Your task to perform on an android device: change the upload size in google photos Image 0: 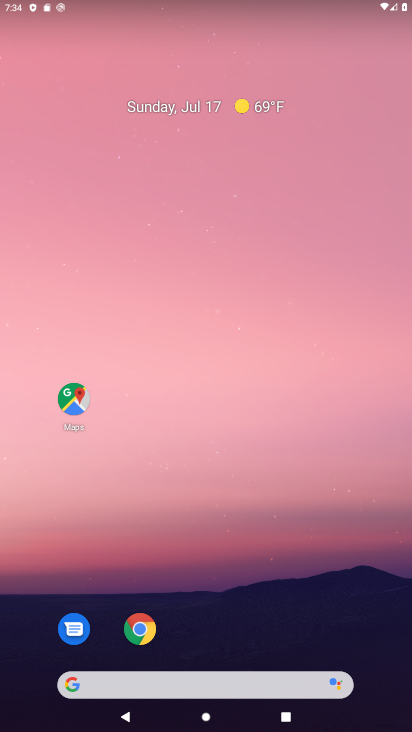
Step 0: drag from (205, 646) to (216, 128)
Your task to perform on an android device: change the upload size in google photos Image 1: 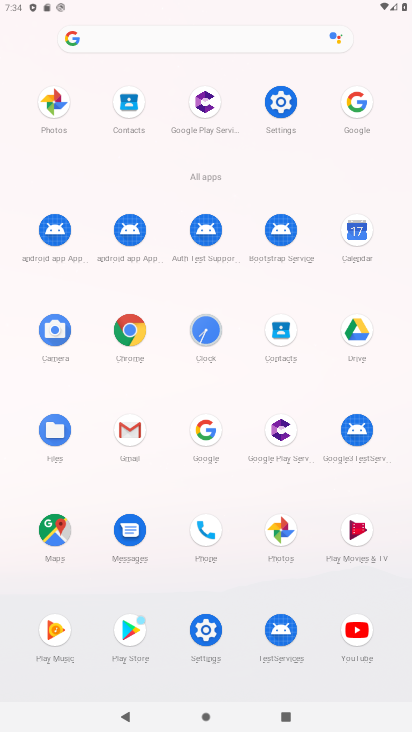
Step 1: click (275, 532)
Your task to perform on an android device: change the upload size in google photos Image 2: 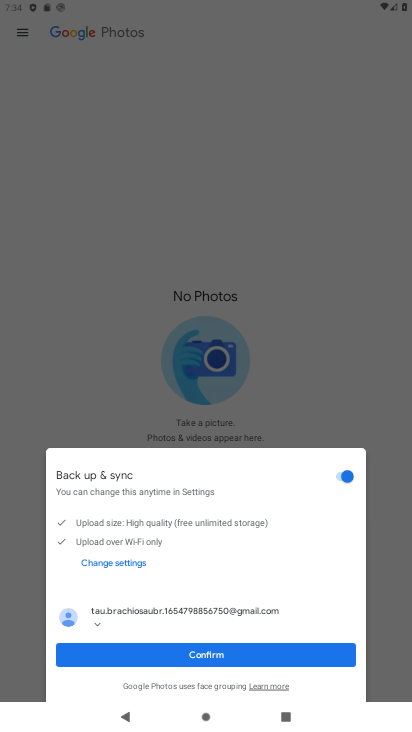
Step 2: click (213, 653)
Your task to perform on an android device: change the upload size in google photos Image 3: 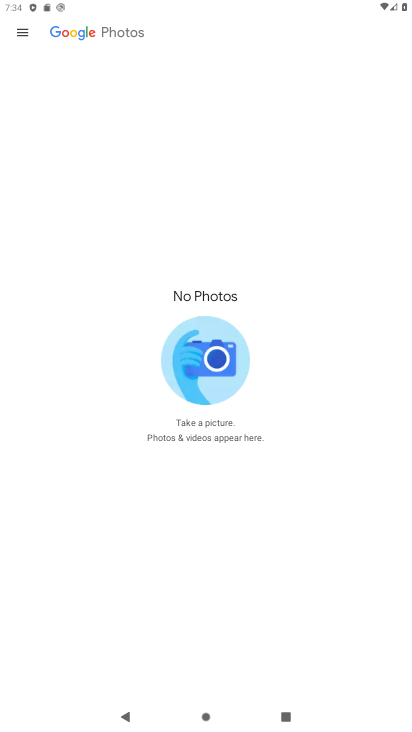
Step 3: click (20, 27)
Your task to perform on an android device: change the upload size in google photos Image 4: 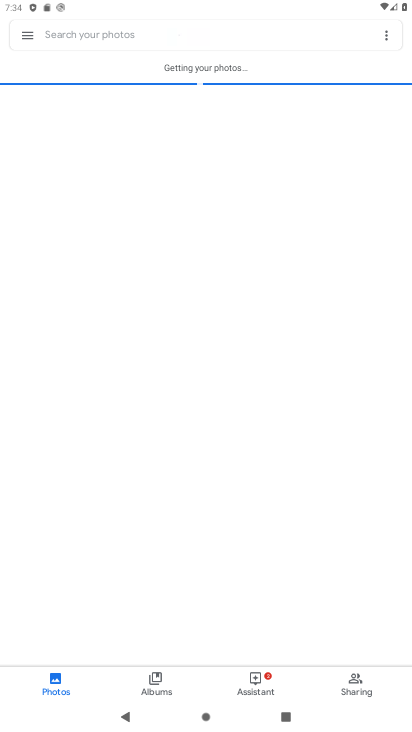
Step 4: click (27, 32)
Your task to perform on an android device: change the upload size in google photos Image 5: 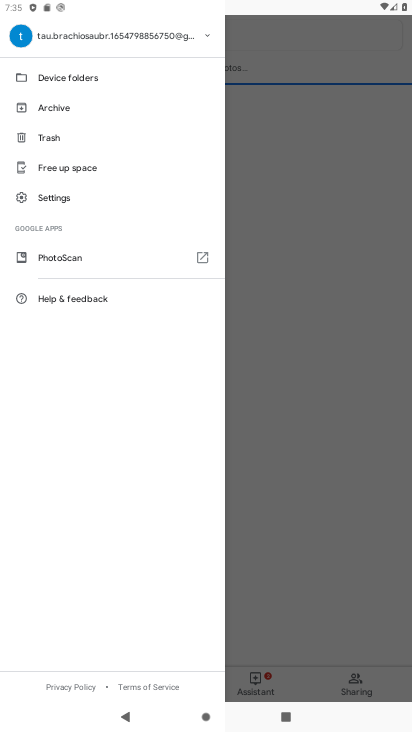
Step 5: click (32, 193)
Your task to perform on an android device: change the upload size in google photos Image 6: 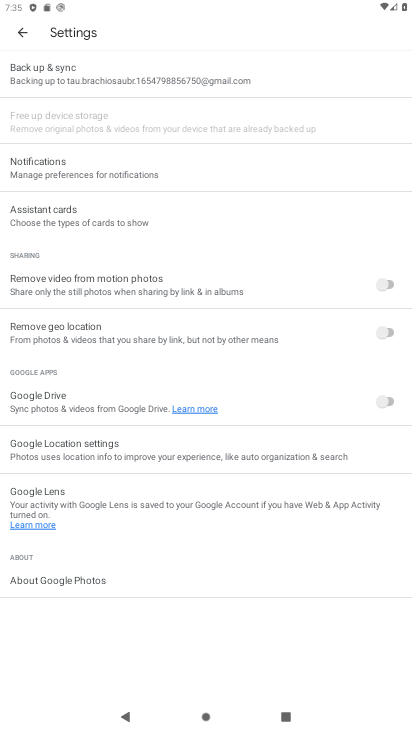
Step 6: click (80, 63)
Your task to perform on an android device: change the upload size in google photos Image 7: 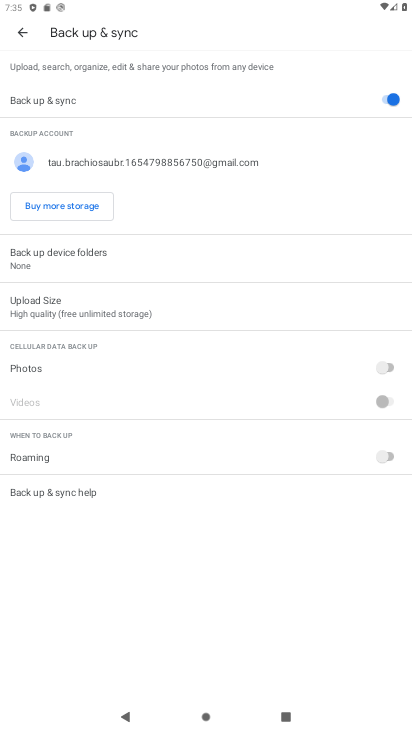
Step 7: click (109, 307)
Your task to perform on an android device: change the upload size in google photos Image 8: 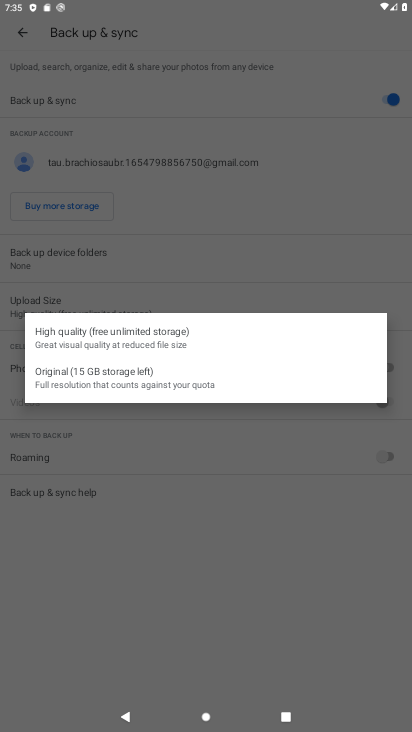
Step 8: click (91, 366)
Your task to perform on an android device: change the upload size in google photos Image 9: 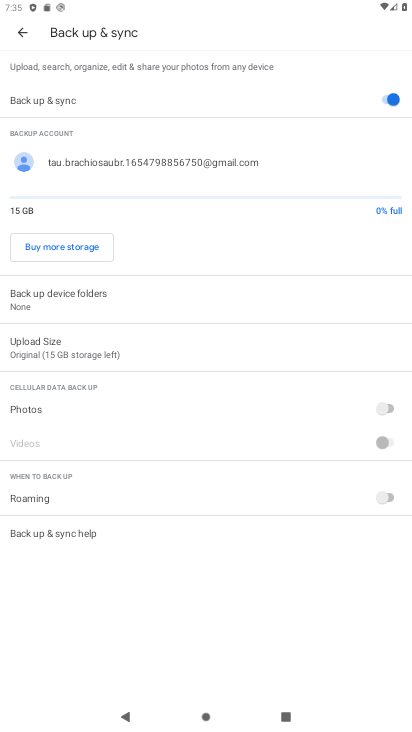
Step 9: task complete